Your task to perform on an android device: empty trash in google photos Image 0: 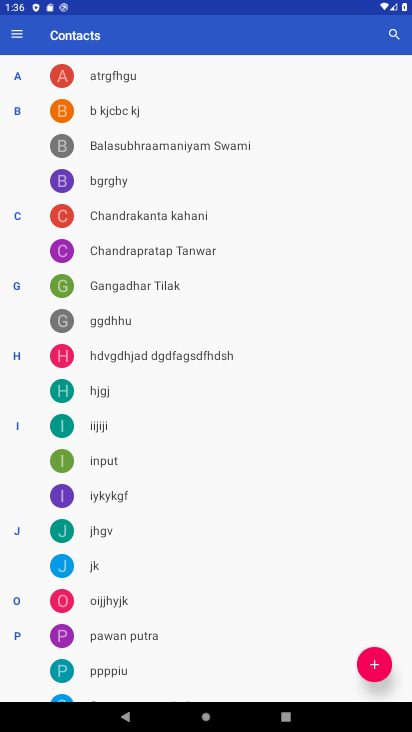
Step 0: press home button
Your task to perform on an android device: empty trash in google photos Image 1: 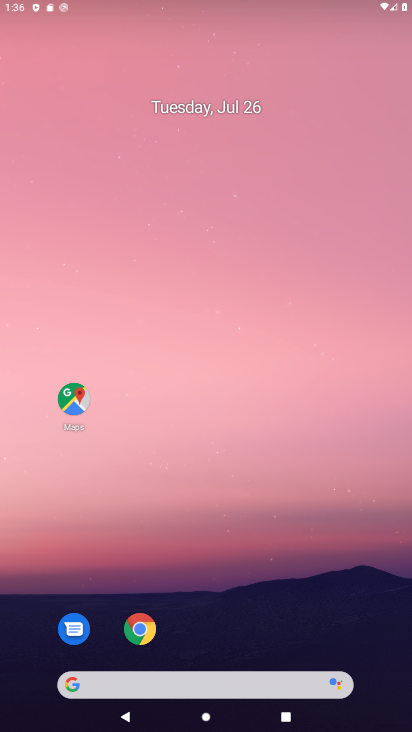
Step 1: drag from (309, 685) to (342, 2)
Your task to perform on an android device: empty trash in google photos Image 2: 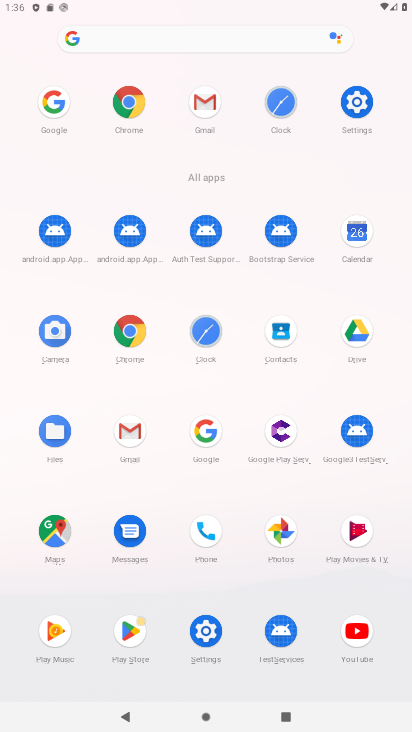
Step 2: click (278, 525)
Your task to perform on an android device: empty trash in google photos Image 3: 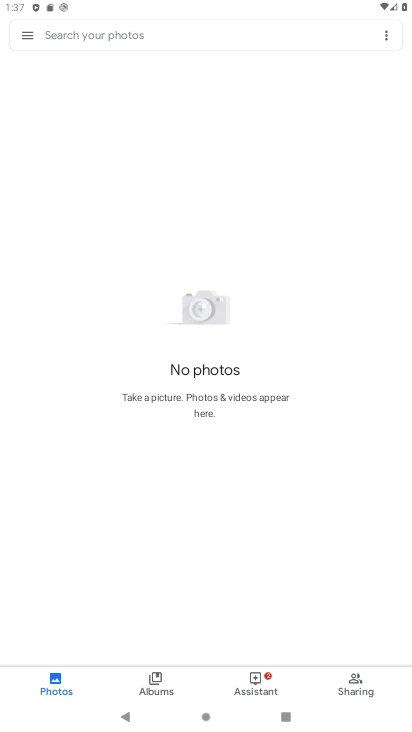
Step 3: click (36, 31)
Your task to perform on an android device: empty trash in google photos Image 4: 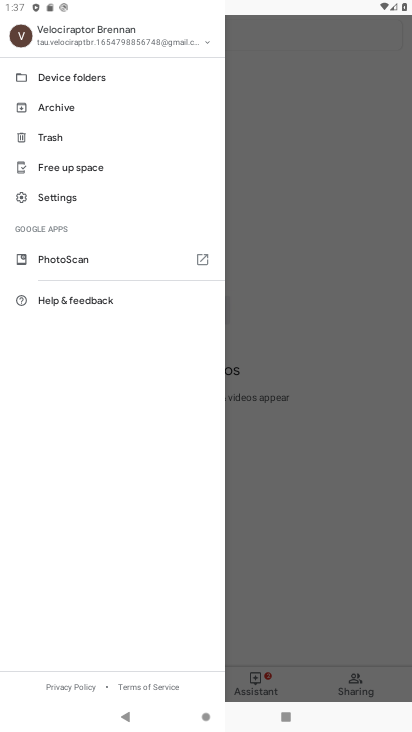
Step 4: click (74, 141)
Your task to perform on an android device: empty trash in google photos Image 5: 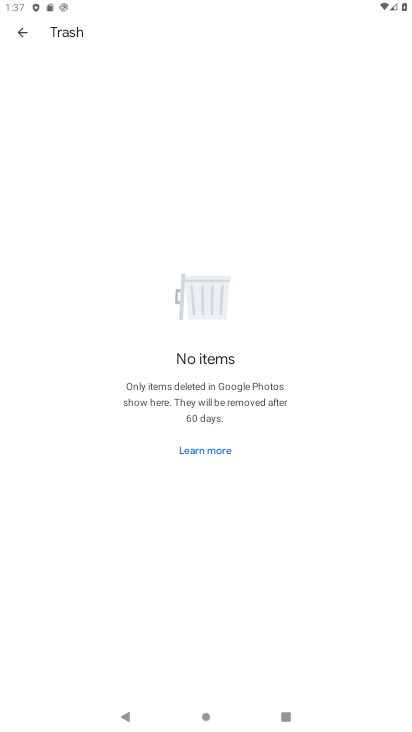
Step 5: task complete